Your task to perform on an android device: turn off translation in the chrome app Image 0: 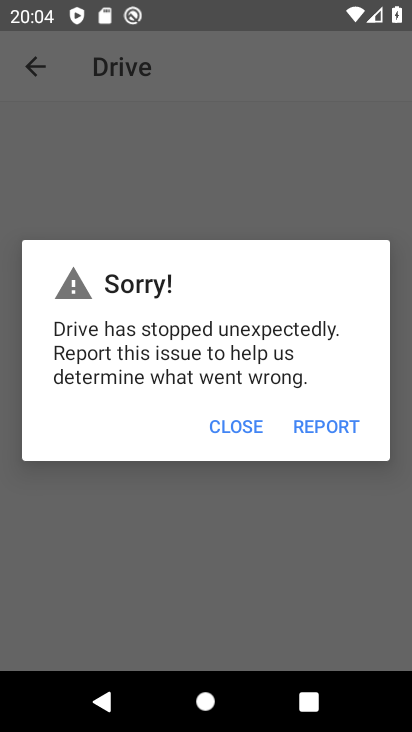
Step 0: press home button
Your task to perform on an android device: turn off translation in the chrome app Image 1: 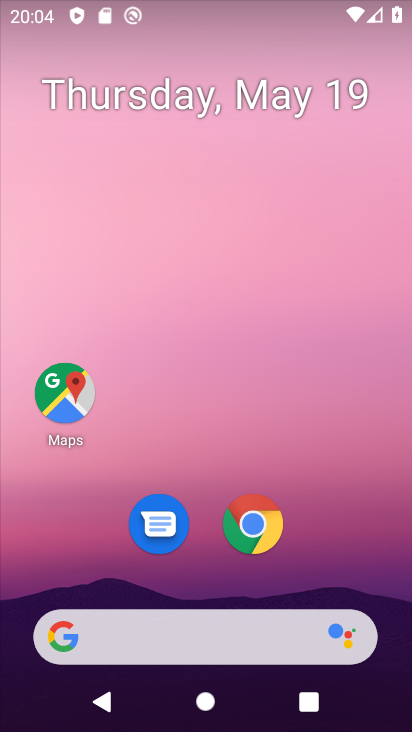
Step 1: click (335, 550)
Your task to perform on an android device: turn off translation in the chrome app Image 2: 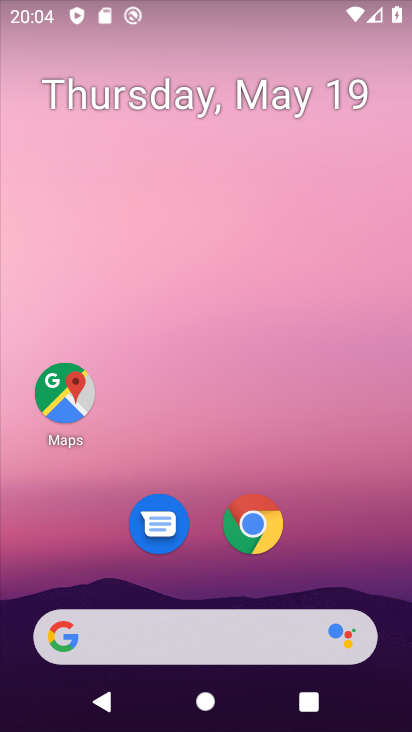
Step 2: click (262, 532)
Your task to perform on an android device: turn off translation in the chrome app Image 3: 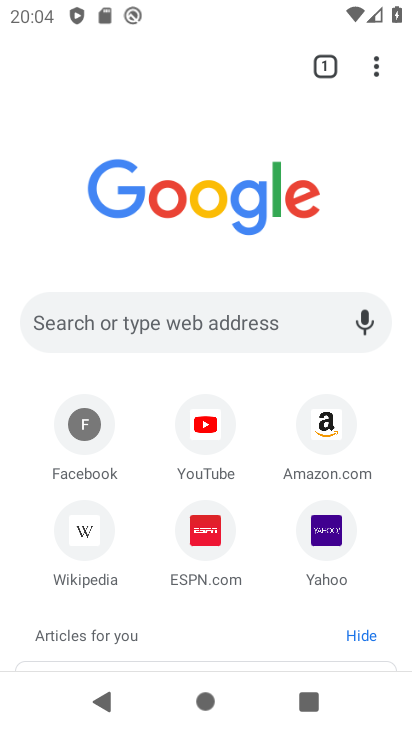
Step 3: click (369, 79)
Your task to perform on an android device: turn off translation in the chrome app Image 4: 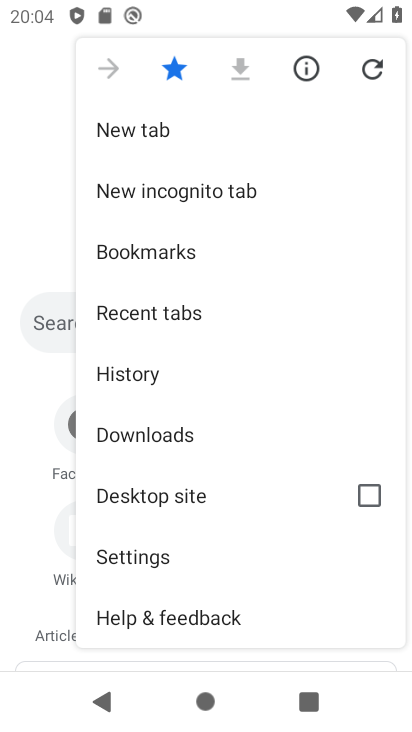
Step 4: click (152, 548)
Your task to perform on an android device: turn off translation in the chrome app Image 5: 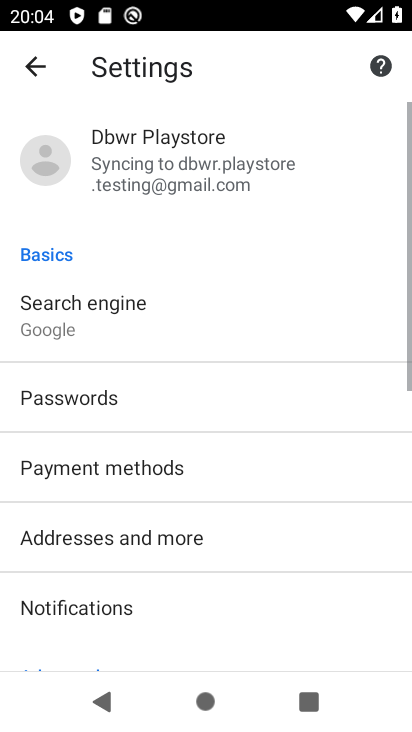
Step 5: drag from (242, 501) to (265, 329)
Your task to perform on an android device: turn off translation in the chrome app Image 6: 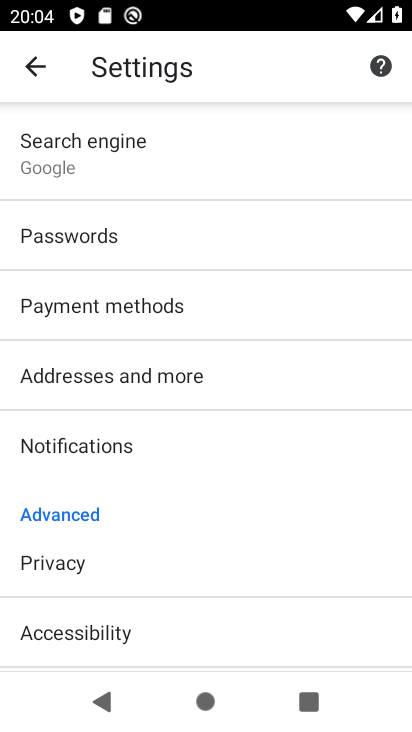
Step 6: drag from (208, 482) to (241, 289)
Your task to perform on an android device: turn off translation in the chrome app Image 7: 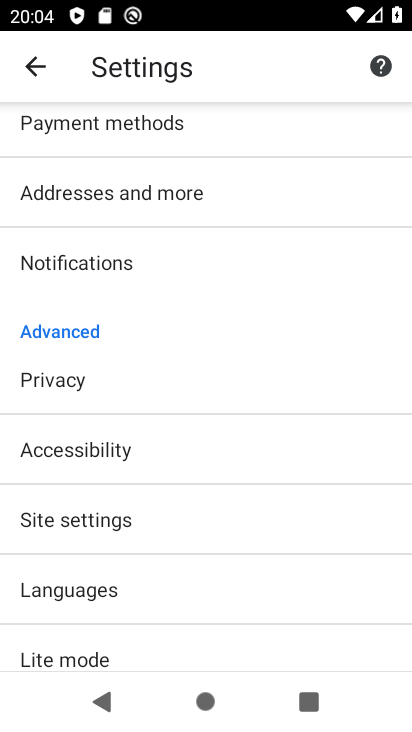
Step 7: click (181, 583)
Your task to perform on an android device: turn off translation in the chrome app Image 8: 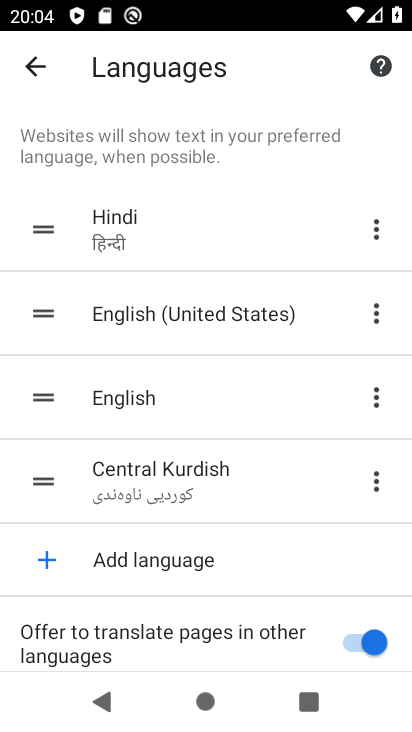
Step 8: click (360, 637)
Your task to perform on an android device: turn off translation in the chrome app Image 9: 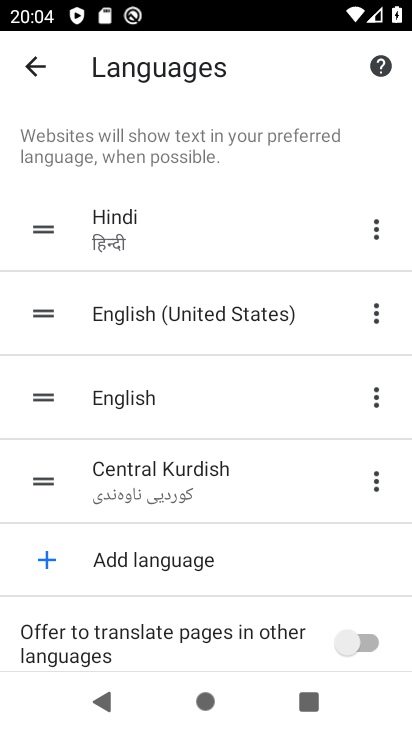
Step 9: task complete